Your task to perform on an android device: Do I have any events this weekend? Image 0: 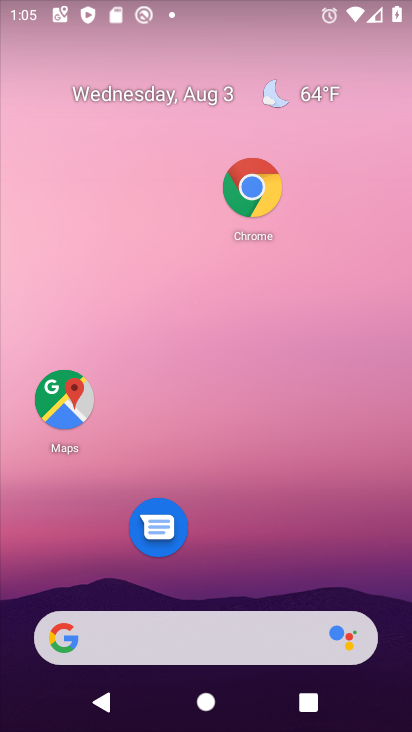
Step 0: drag from (206, 579) to (249, 52)
Your task to perform on an android device: Do I have any events this weekend? Image 1: 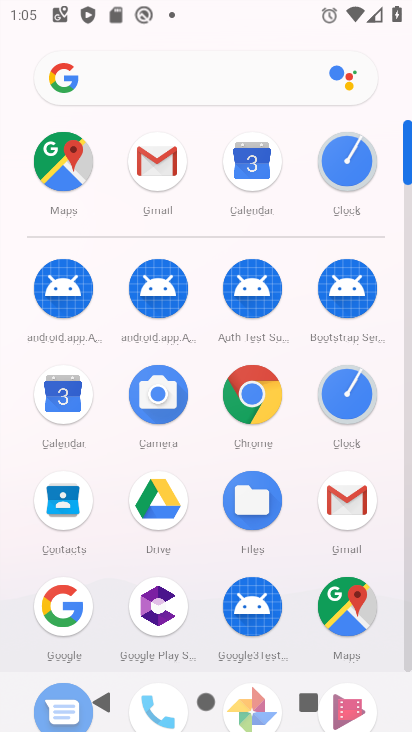
Step 1: click (58, 425)
Your task to perform on an android device: Do I have any events this weekend? Image 2: 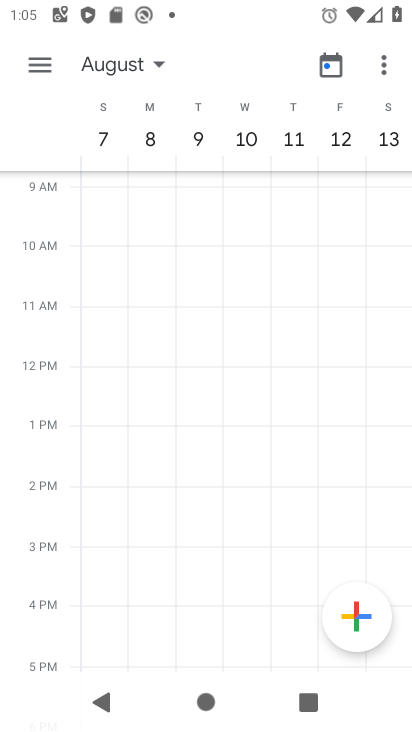
Step 2: drag from (126, 130) to (377, 130)
Your task to perform on an android device: Do I have any events this weekend? Image 3: 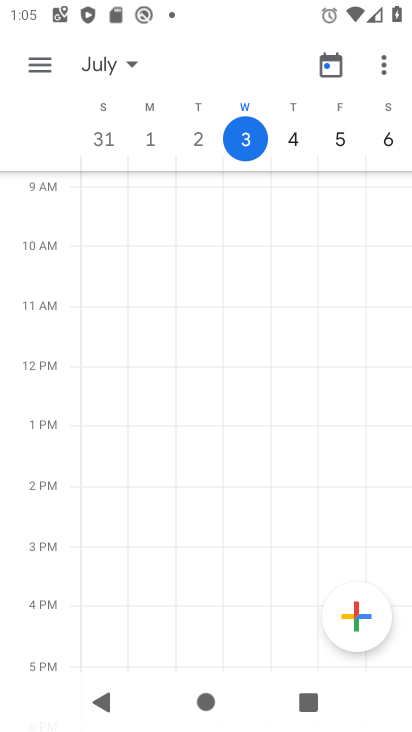
Step 3: click (41, 65)
Your task to perform on an android device: Do I have any events this weekend? Image 4: 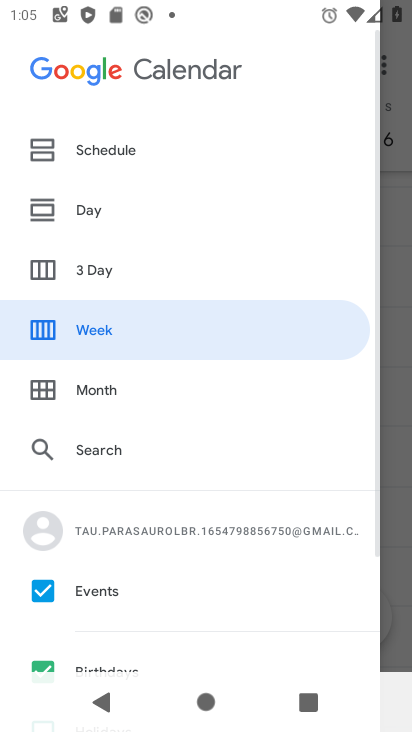
Step 4: drag from (103, 594) to (144, 369)
Your task to perform on an android device: Do I have any events this weekend? Image 5: 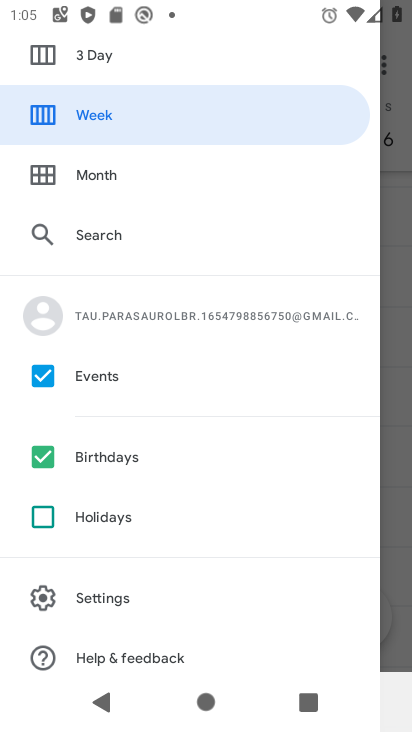
Step 5: click (111, 463)
Your task to perform on an android device: Do I have any events this weekend? Image 6: 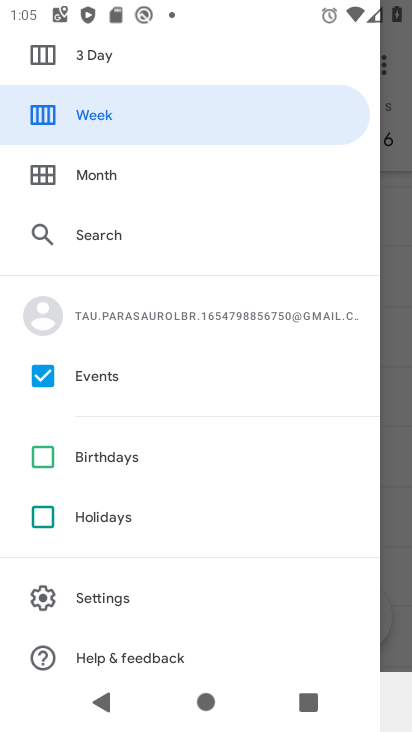
Step 6: click (117, 118)
Your task to perform on an android device: Do I have any events this weekend? Image 7: 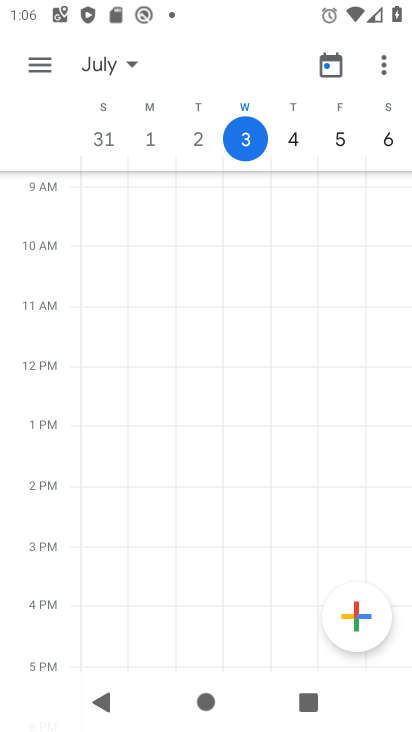
Step 7: task complete